Your task to perform on an android device: make emails show in primary in the gmail app Image 0: 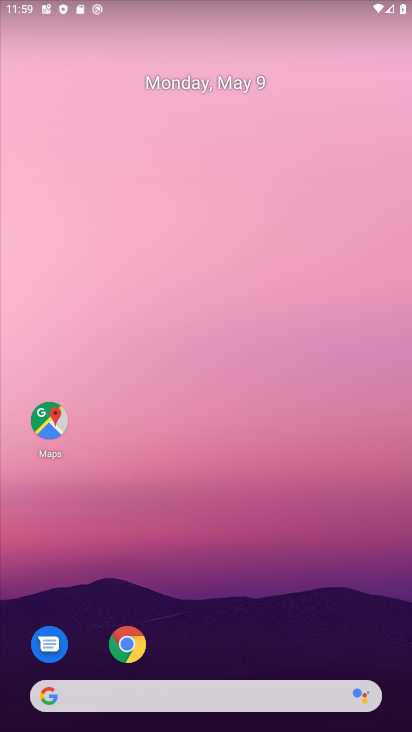
Step 0: drag from (193, 640) to (287, 77)
Your task to perform on an android device: make emails show in primary in the gmail app Image 1: 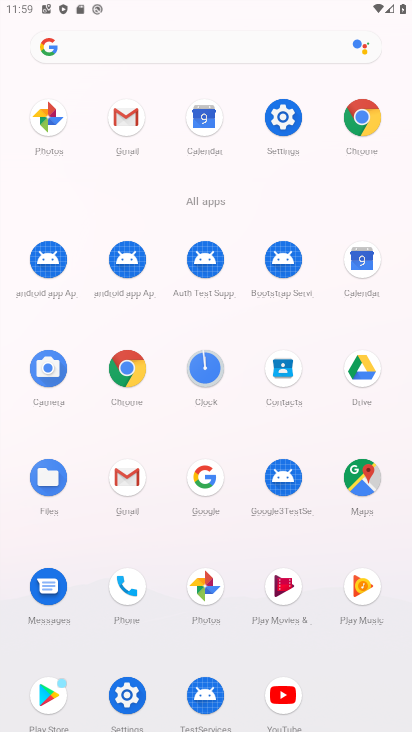
Step 1: click (126, 119)
Your task to perform on an android device: make emails show in primary in the gmail app Image 2: 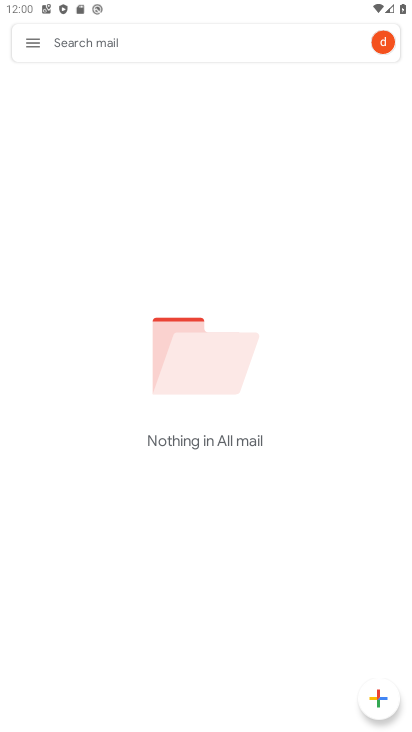
Step 2: click (33, 46)
Your task to perform on an android device: make emails show in primary in the gmail app Image 3: 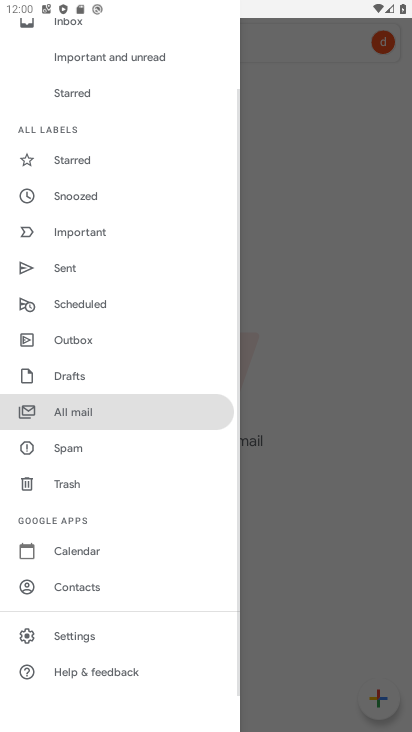
Step 3: click (85, 638)
Your task to perform on an android device: make emails show in primary in the gmail app Image 4: 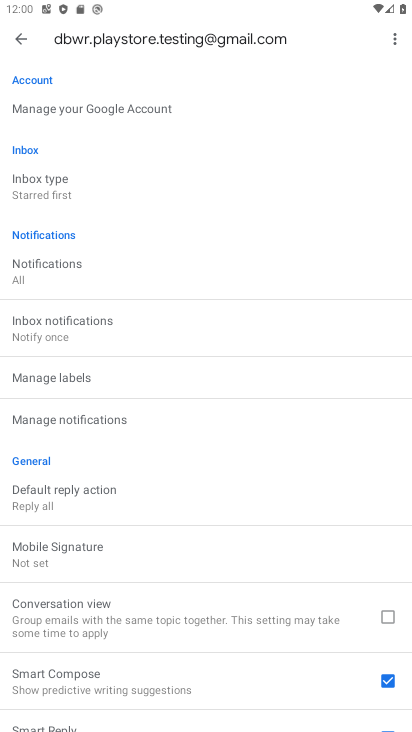
Step 4: task complete